Your task to perform on an android device: Open Google Maps and go to "Timeline" Image 0: 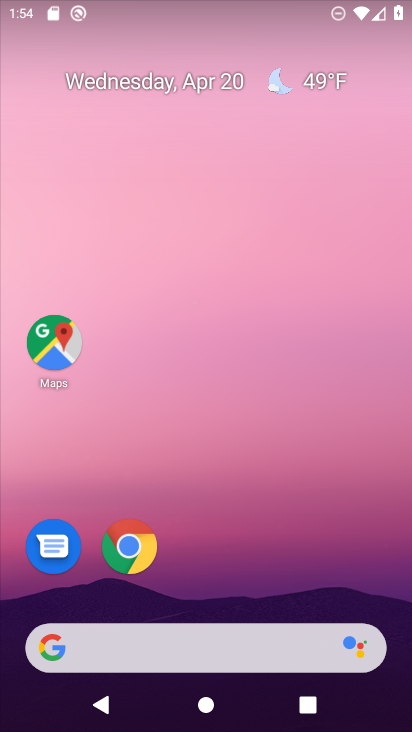
Step 0: click (57, 333)
Your task to perform on an android device: Open Google Maps and go to "Timeline" Image 1: 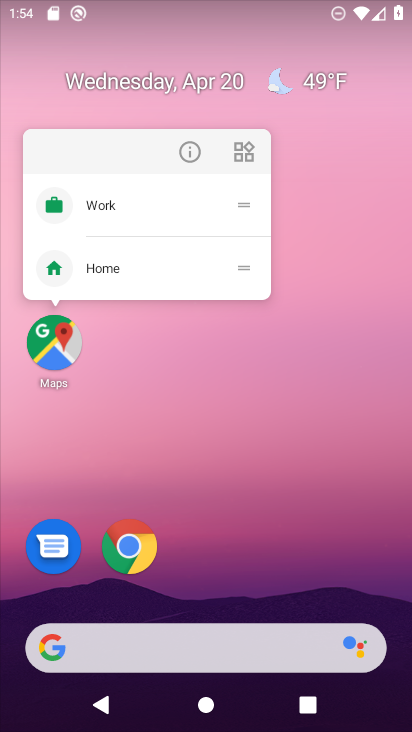
Step 1: click (63, 352)
Your task to perform on an android device: Open Google Maps and go to "Timeline" Image 2: 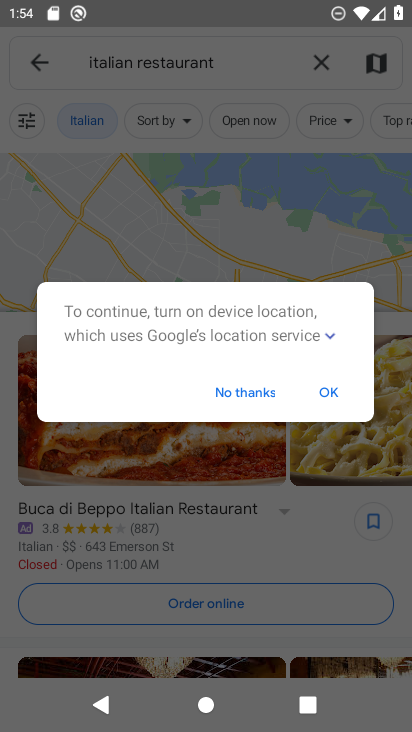
Step 2: click (36, 54)
Your task to perform on an android device: Open Google Maps and go to "Timeline" Image 3: 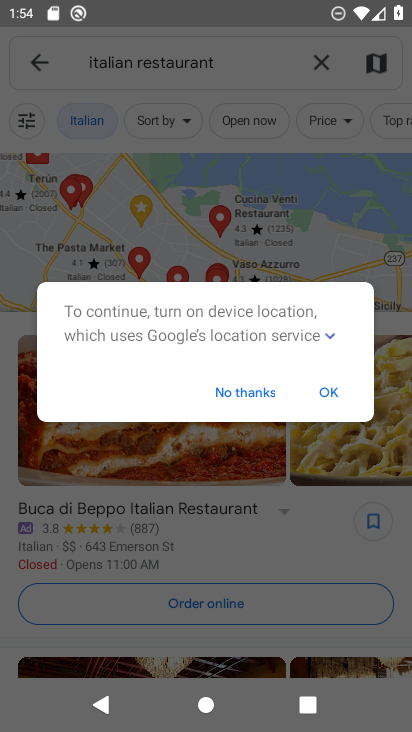
Step 3: click (242, 391)
Your task to perform on an android device: Open Google Maps and go to "Timeline" Image 4: 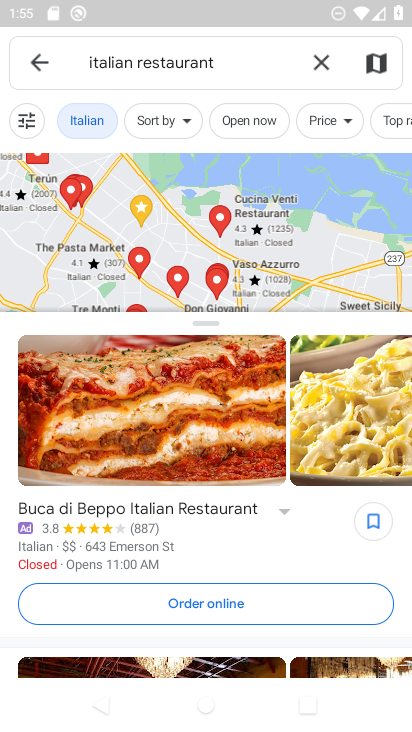
Step 4: click (39, 75)
Your task to perform on an android device: Open Google Maps and go to "Timeline" Image 5: 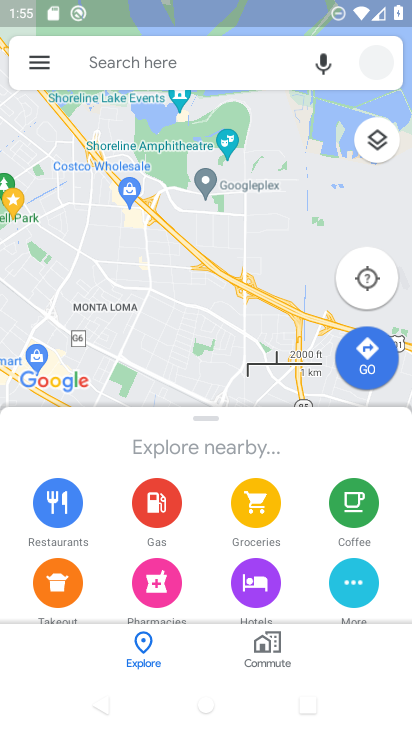
Step 5: click (34, 54)
Your task to perform on an android device: Open Google Maps and go to "Timeline" Image 6: 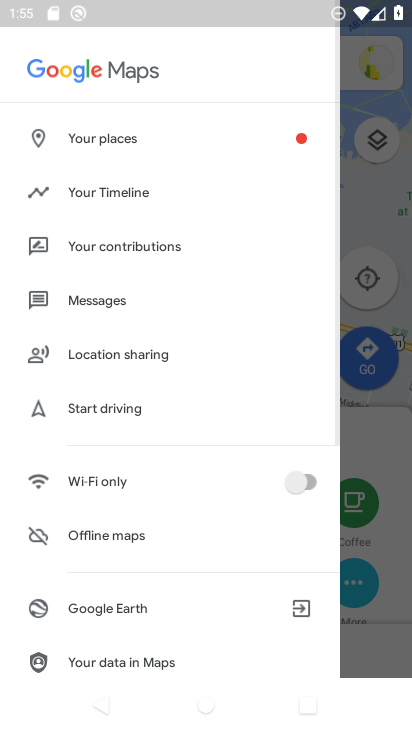
Step 6: click (134, 198)
Your task to perform on an android device: Open Google Maps and go to "Timeline" Image 7: 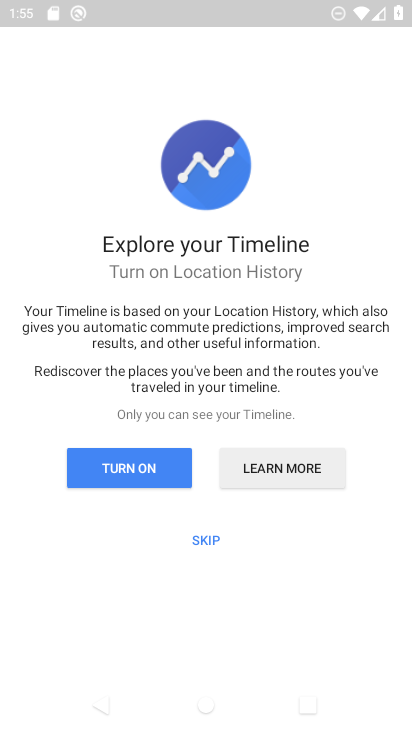
Step 7: click (213, 532)
Your task to perform on an android device: Open Google Maps and go to "Timeline" Image 8: 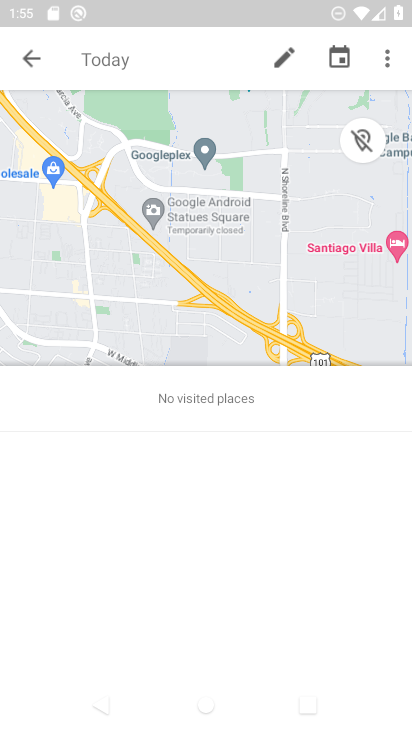
Step 8: click (388, 55)
Your task to perform on an android device: Open Google Maps and go to "Timeline" Image 9: 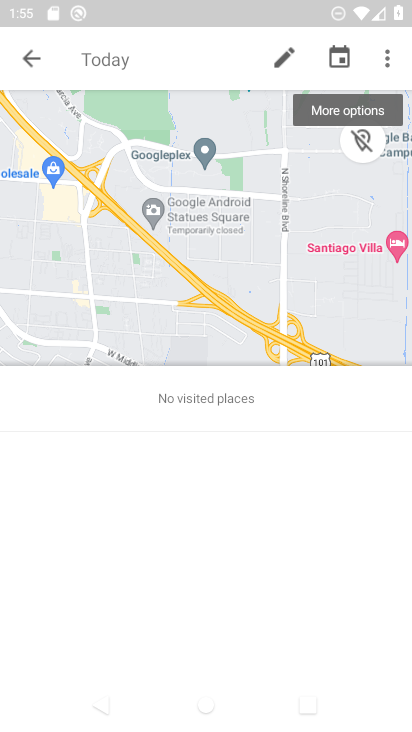
Step 9: click (393, 50)
Your task to perform on an android device: Open Google Maps and go to "Timeline" Image 10: 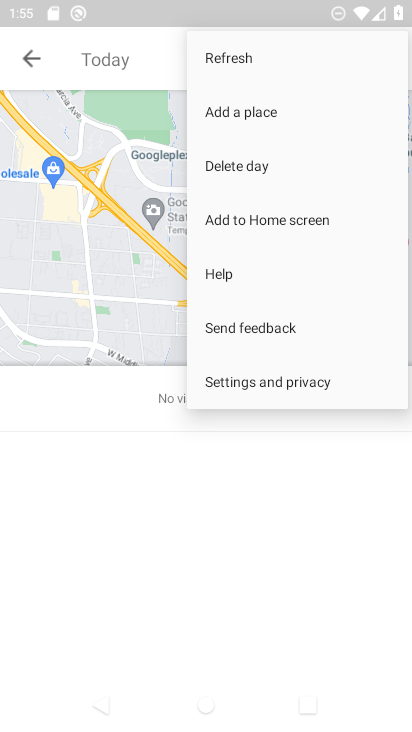
Step 10: click (113, 252)
Your task to perform on an android device: Open Google Maps and go to "Timeline" Image 11: 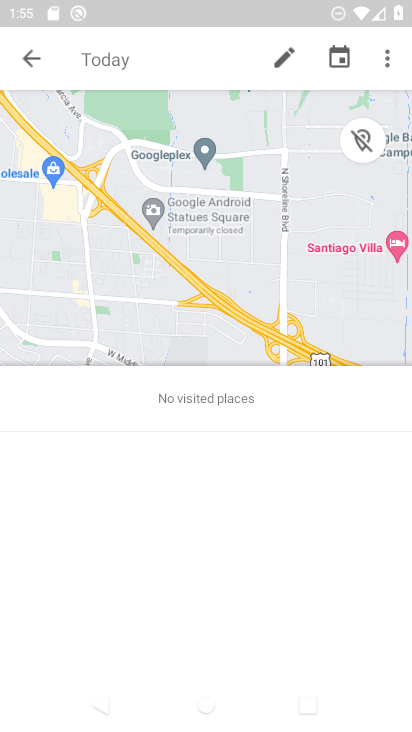
Step 11: task complete